Your task to perform on an android device: Go to wifi settings Image 0: 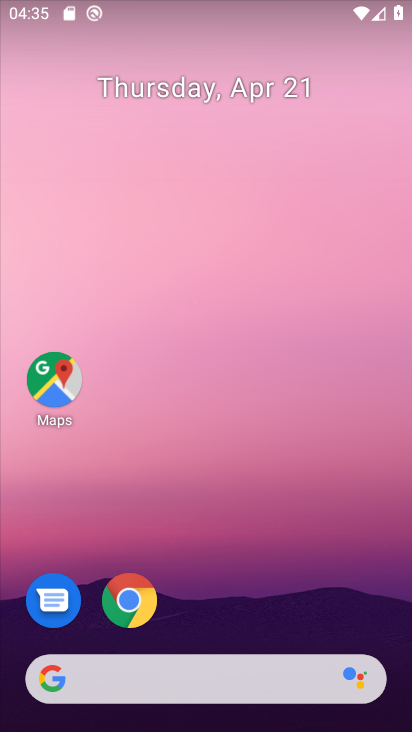
Step 0: drag from (375, 612) to (363, 8)
Your task to perform on an android device: Go to wifi settings Image 1: 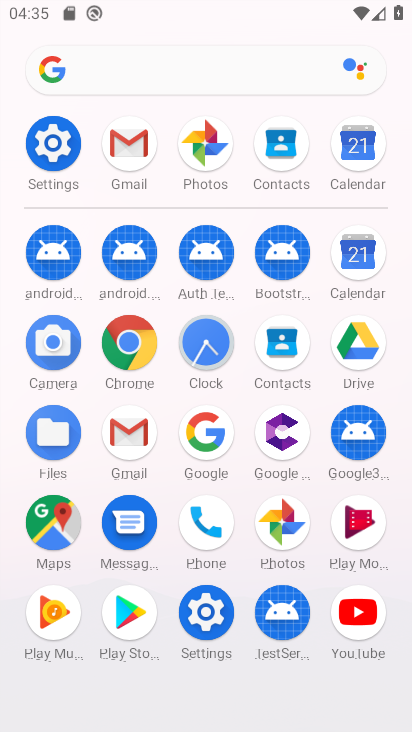
Step 1: click (56, 148)
Your task to perform on an android device: Go to wifi settings Image 2: 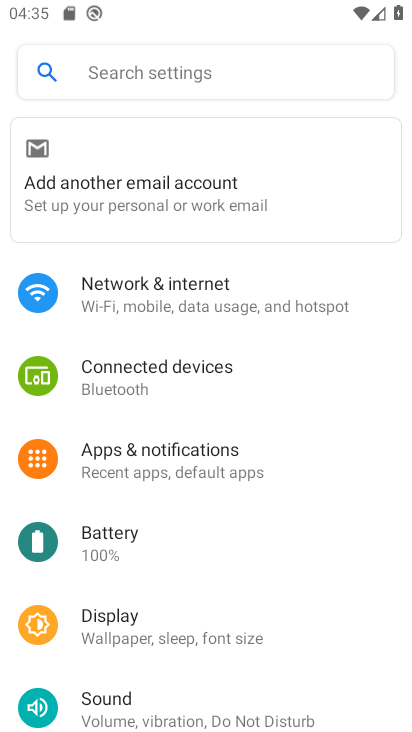
Step 2: click (161, 311)
Your task to perform on an android device: Go to wifi settings Image 3: 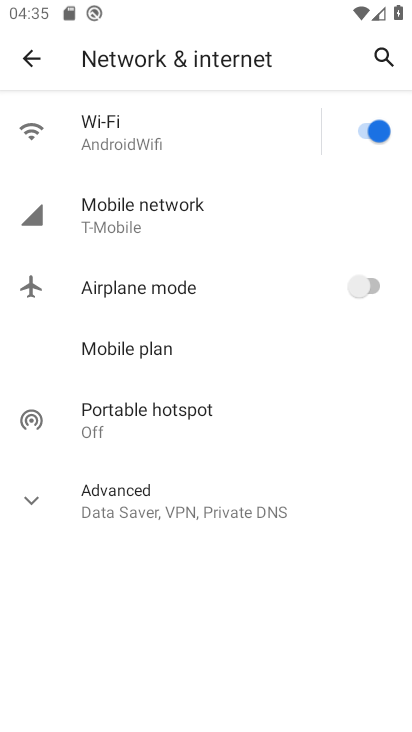
Step 3: click (103, 139)
Your task to perform on an android device: Go to wifi settings Image 4: 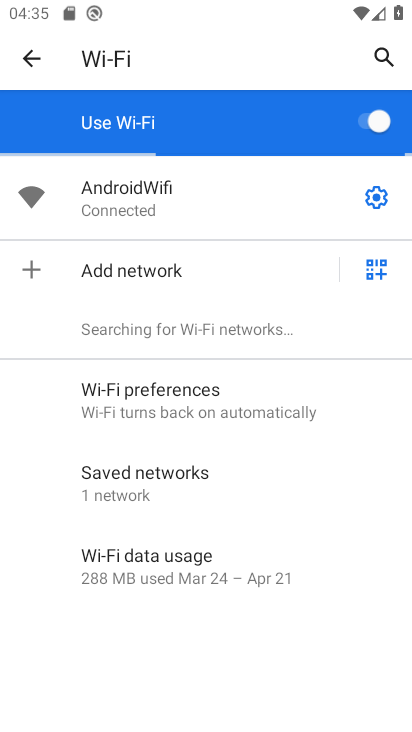
Step 4: task complete